Your task to perform on an android device: turn on location history Image 0: 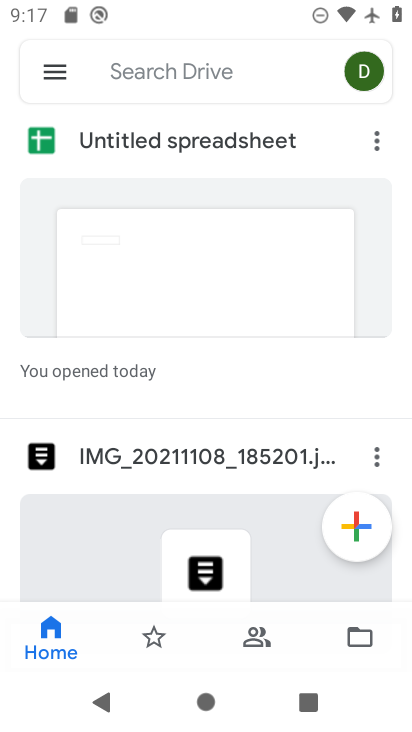
Step 0: press home button
Your task to perform on an android device: turn on location history Image 1: 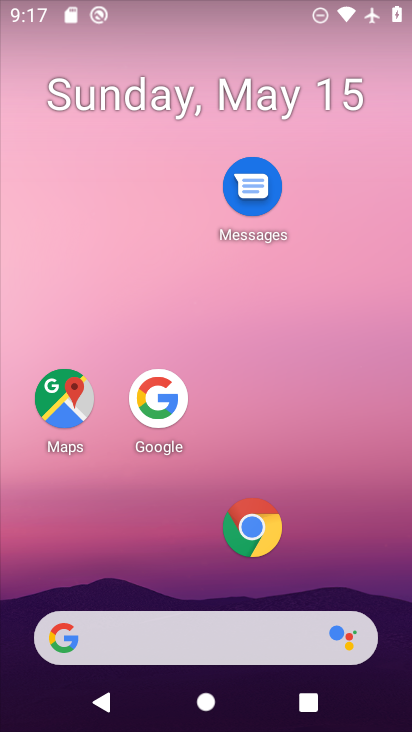
Step 1: click (60, 407)
Your task to perform on an android device: turn on location history Image 2: 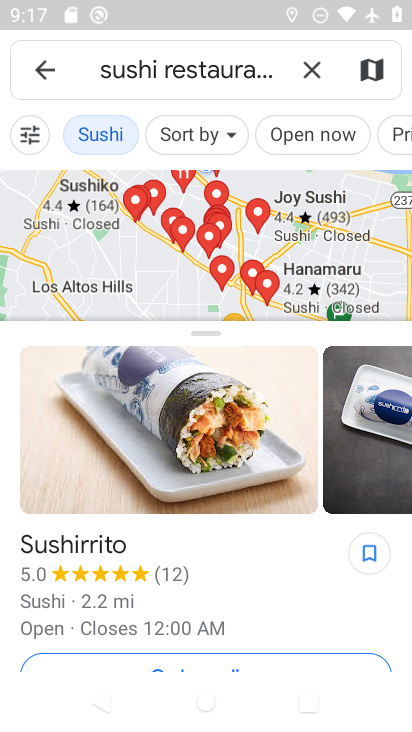
Step 2: click (47, 66)
Your task to perform on an android device: turn on location history Image 3: 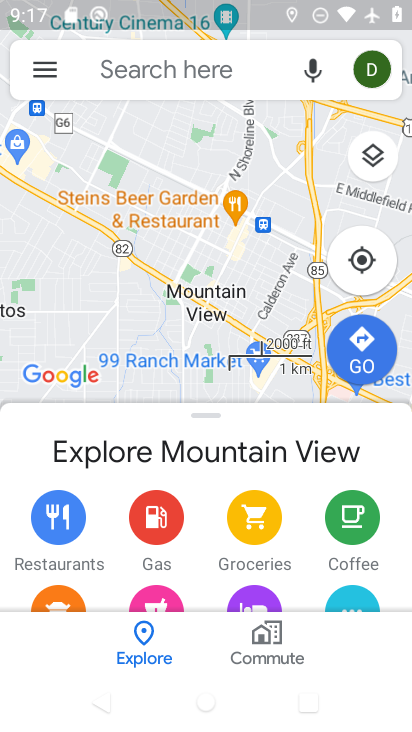
Step 3: click (48, 69)
Your task to perform on an android device: turn on location history Image 4: 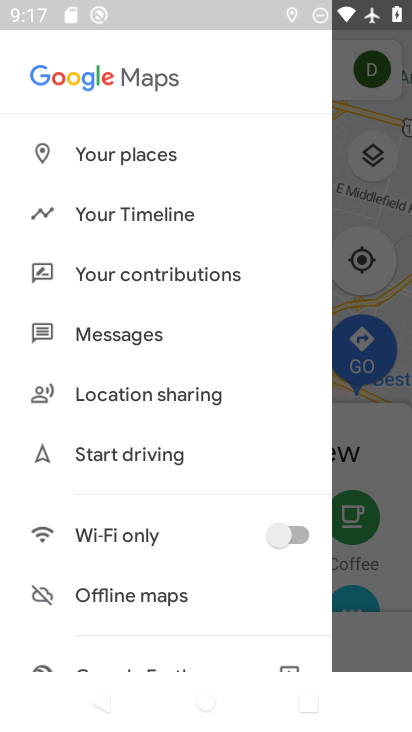
Step 4: click (145, 214)
Your task to perform on an android device: turn on location history Image 5: 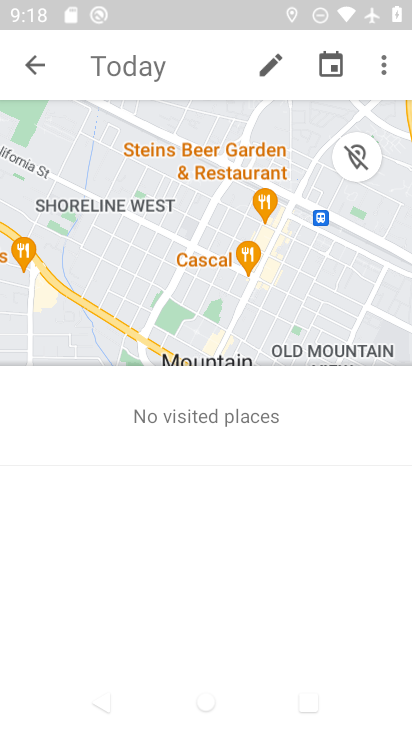
Step 5: click (383, 60)
Your task to perform on an android device: turn on location history Image 6: 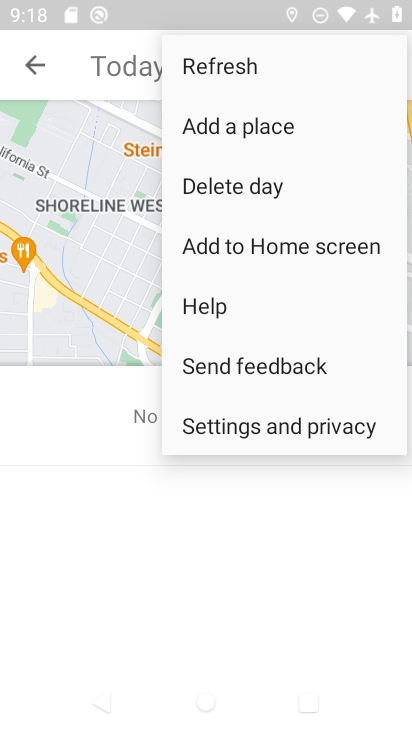
Step 6: click (253, 430)
Your task to perform on an android device: turn on location history Image 7: 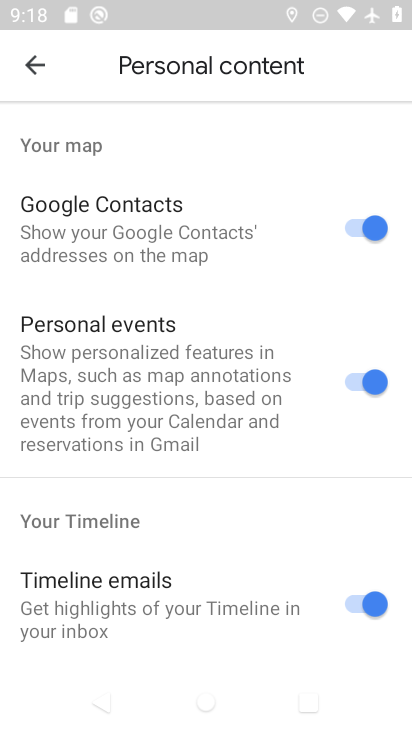
Step 7: drag from (135, 647) to (359, 237)
Your task to perform on an android device: turn on location history Image 8: 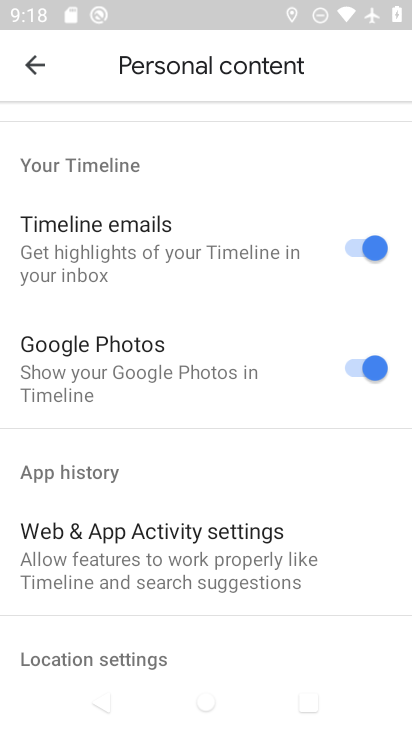
Step 8: drag from (147, 643) to (355, 217)
Your task to perform on an android device: turn on location history Image 9: 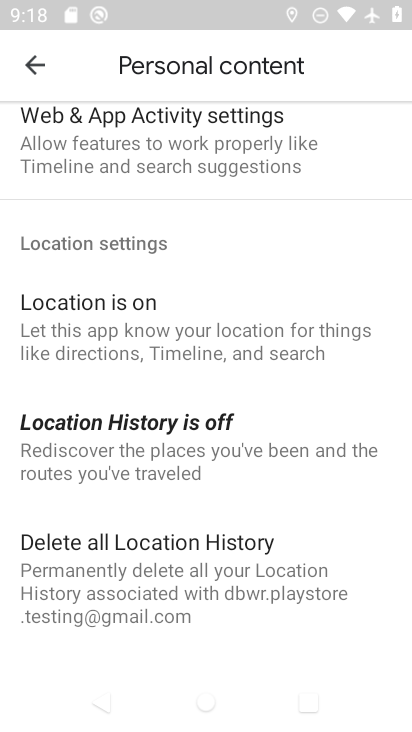
Step 9: click (195, 441)
Your task to perform on an android device: turn on location history Image 10: 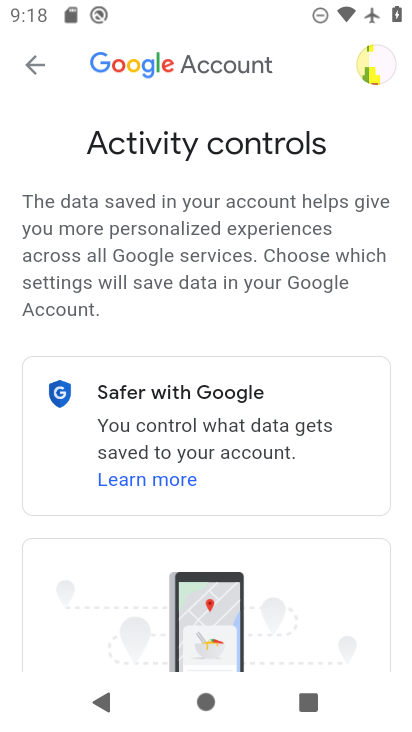
Step 10: task complete